Your task to perform on an android device: Open Google Maps and go to "Timeline" Image 0: 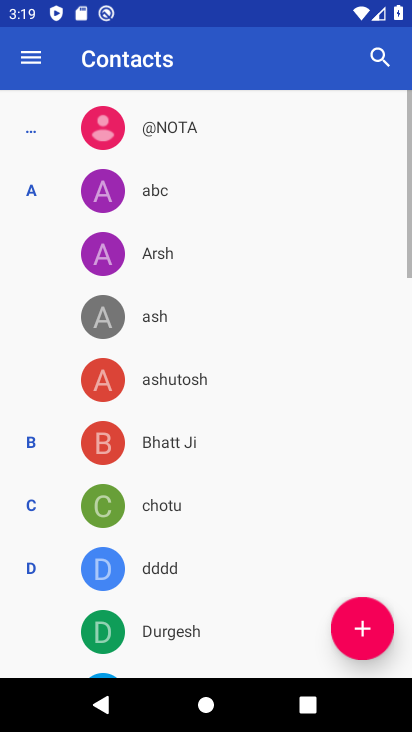
Step 0: press back button
Your task to perform on an android device: Open Google Maps and go to "Timeline" Image 1: 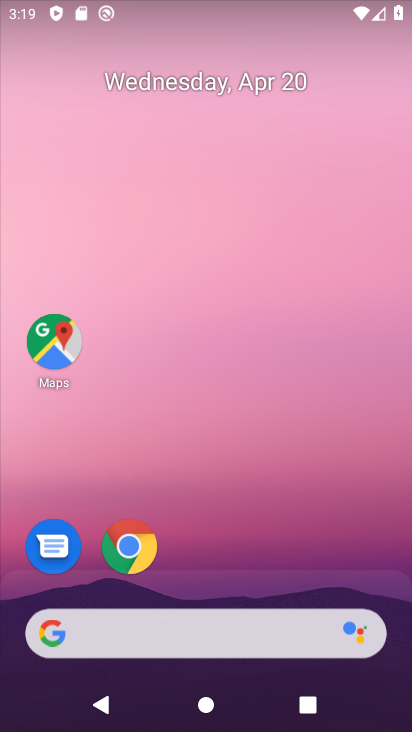
Step 1: click (74, 351)
Your task to perform on an android device: Open Google Maps and go to "Timeline" Image 2: 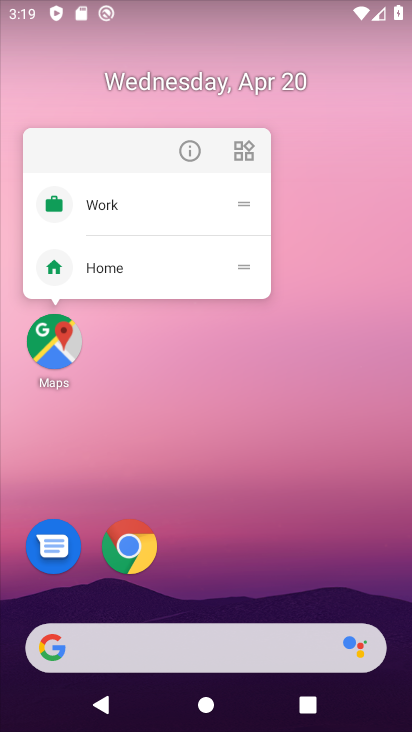
Step 2: click (64, 349)
Your task to perform on an android device: Open Google Maps and go to "Timeline" Image 3: 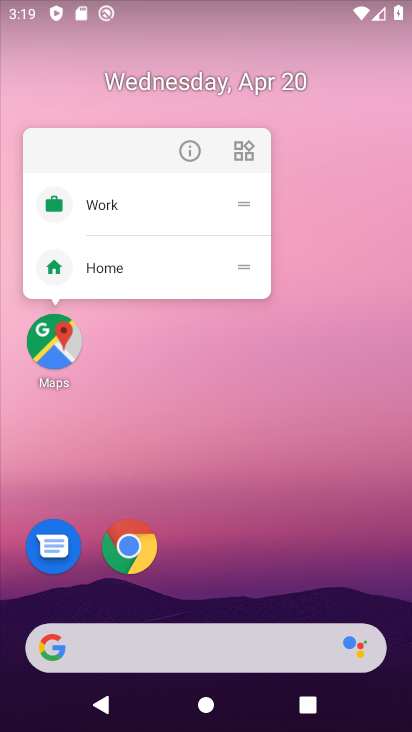
Step 3: click (55, 350)
Your task to perform on an android device: Open Google Maps and go to "Timeline" Image 4: 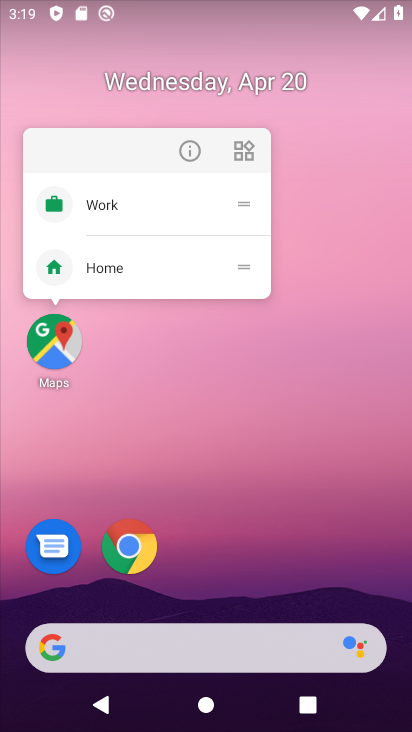
Step 4: click (55, 350)
Your task to perform on an android device: Open Google Maps and go to "Timeline" Image 5: 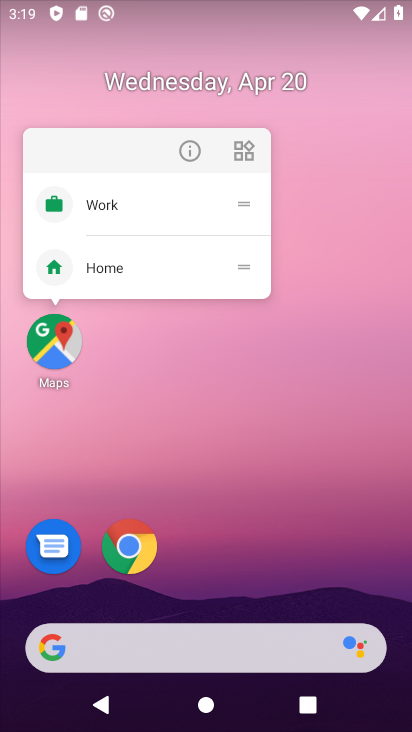
Step 5: click (55, 350)
Your task to perform on an android device: Open Google Maps and go to "Timeline" Image 6: 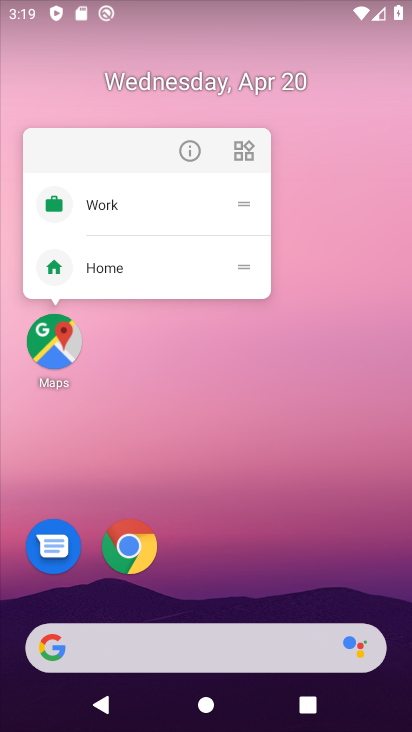
Step 6: click (55, 345)
Your task to perform on an android device: Open Google Maps and go to "Timeline" Image 7: 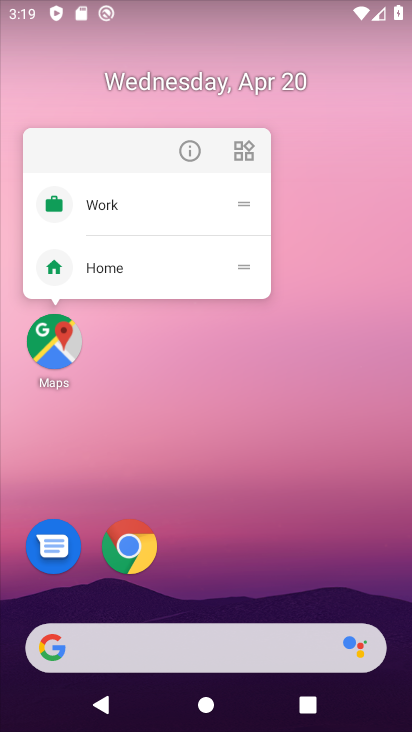
Step 7: click (65, 349)
Your task to perform on an android device: Open Google Maps and go to "Timeline" Image 8: 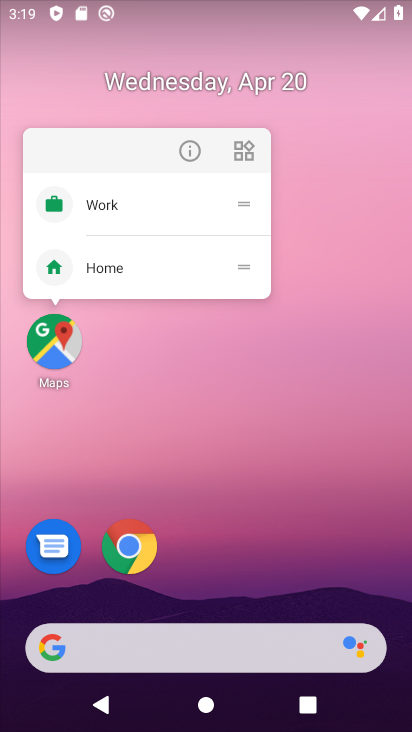
Step 8: click (36, 342)
Your task to perform on an android device: Open Google Maps and go to "Timeline" Image 9: 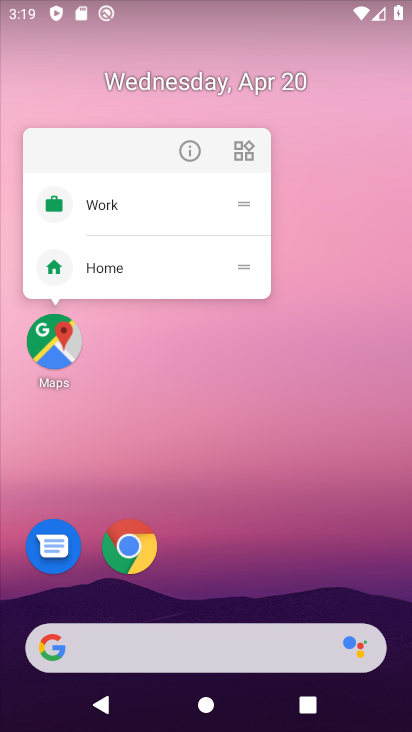
Step 9: click (47, 358)
Your task to perform on an android device: Open Google Maps and go to "Timeline" Image 10: 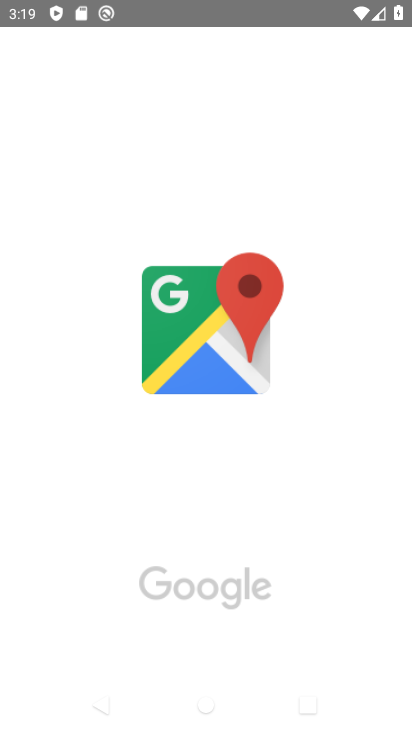
Step 10: click (48, 357)
Your task to perform on an android device: Open Google Maps and go to "Timeline" Image 11: 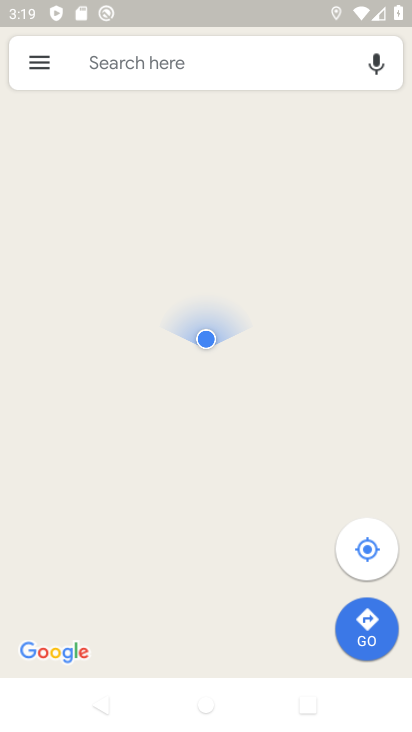
Step 11: click (47, 72)
Your task to perform on an android device: Open Google Maps and go to "Timeline" Image 12: 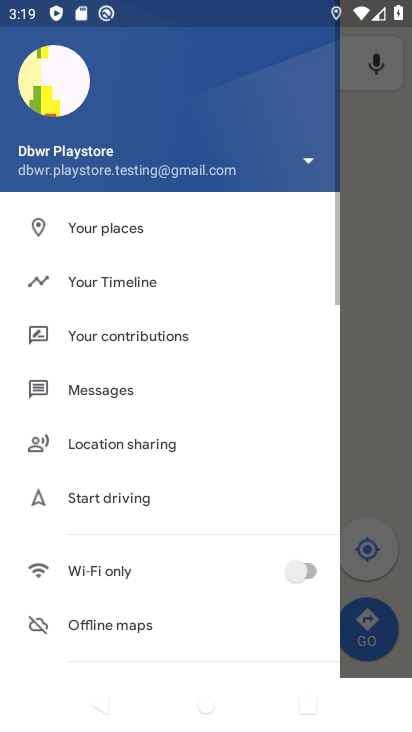
Step 12: click (161, 287)
Your task to perform on an android device: Open Google Maps and go to "Timeline" Image 13: 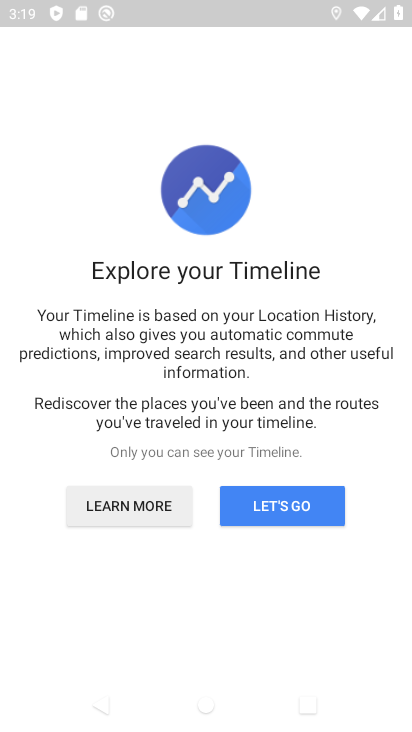
Step 13: click (263, 502)
Your task to perform on an android device: Open Google Maps and go to "Timeline" Image 14: 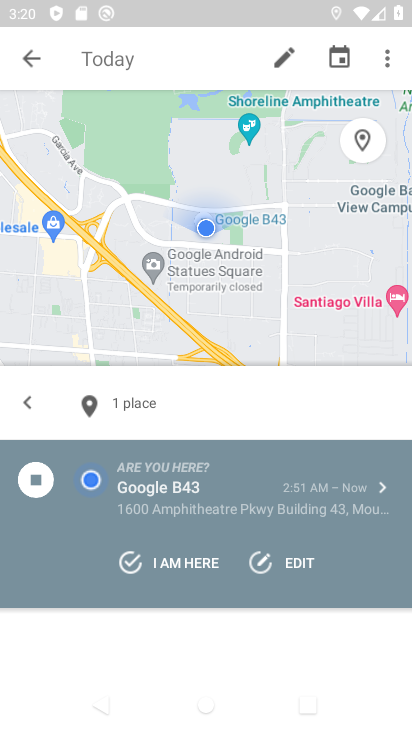
Step 14: task complete